Your task to perform on an android device: open app "Adobe Express: Graphic Design" Image 0: 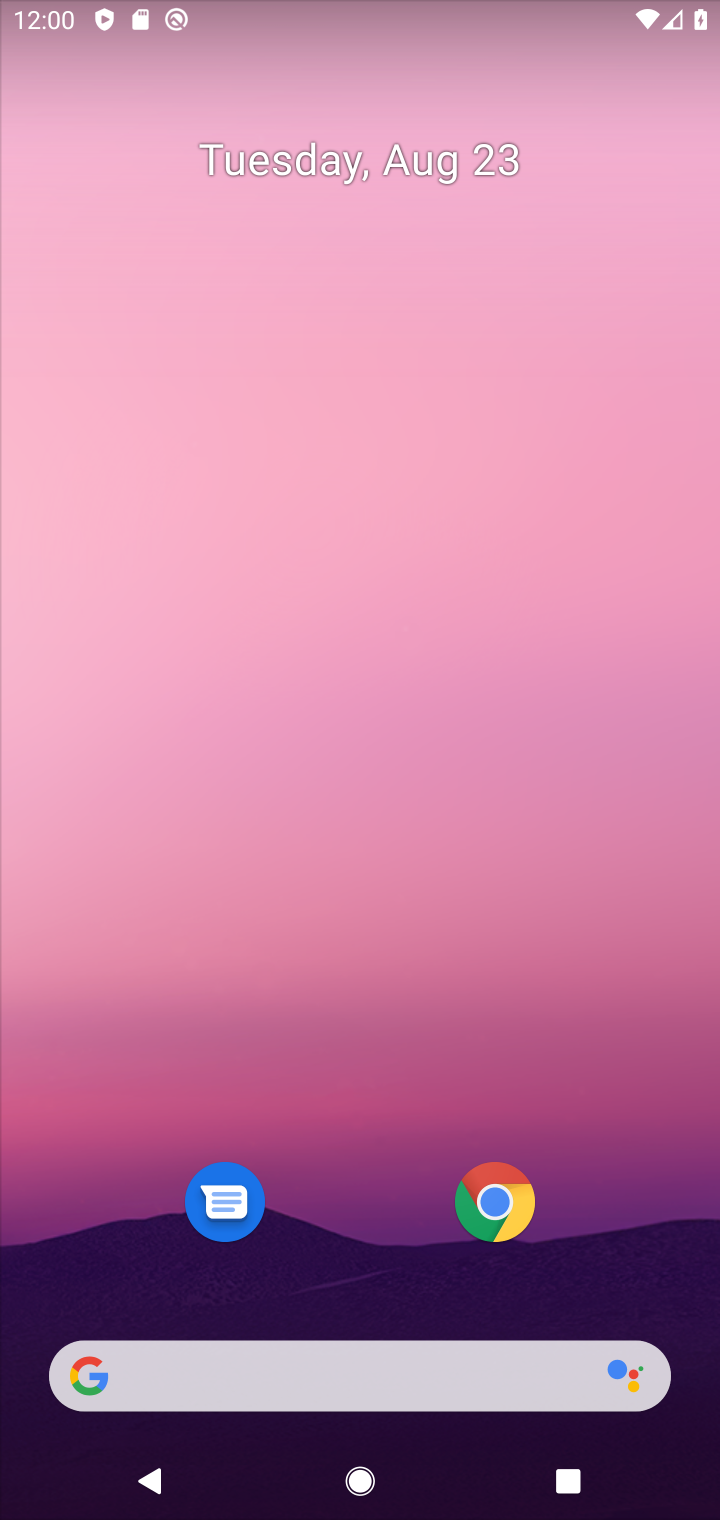
Step 0: drag from (427, 1226) to (421, 173)
Your task to perform on an android device: open app "Adobe Express: Graphic Design" Image 1: 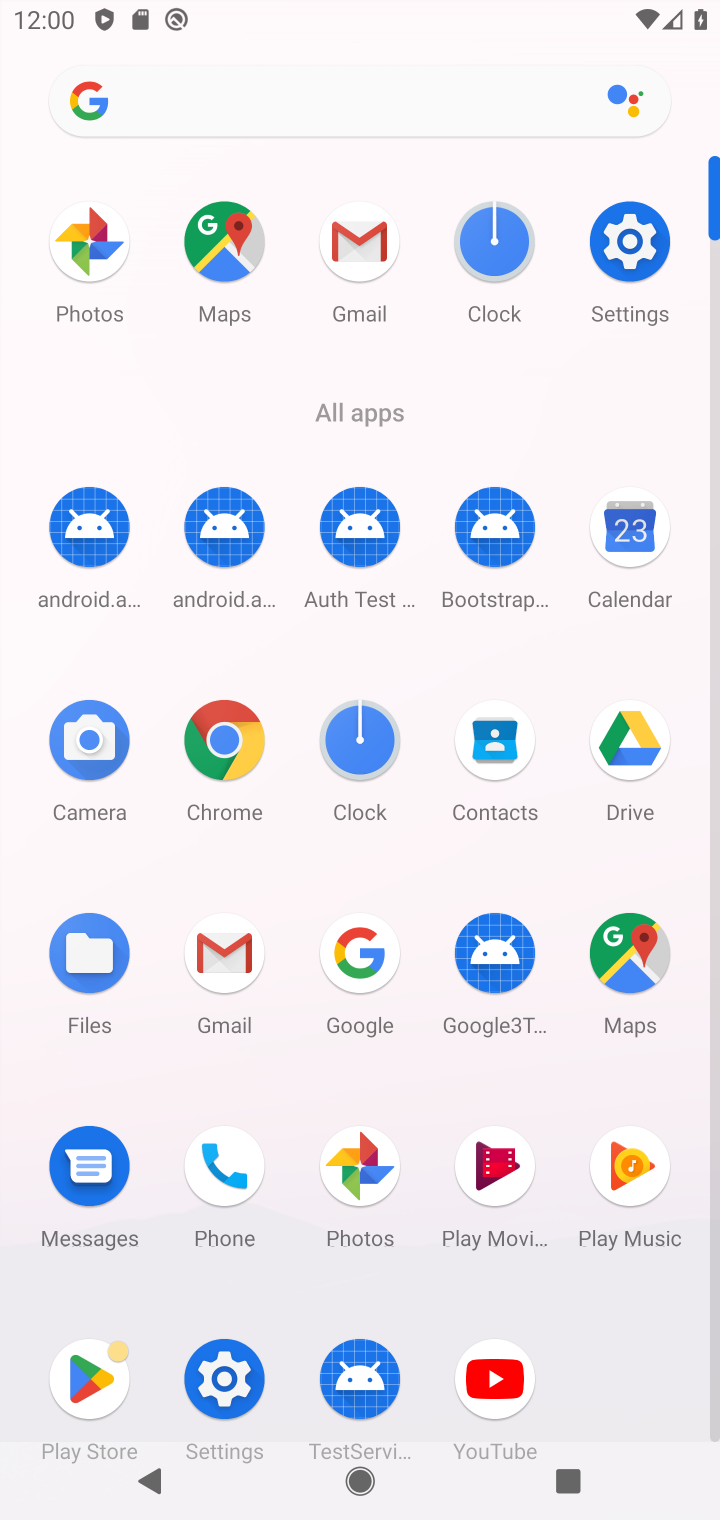
Step 1: click (101, 1360)
Your task to perform on an android device: open app "Adobe Express: Graphic Design" Image 2: 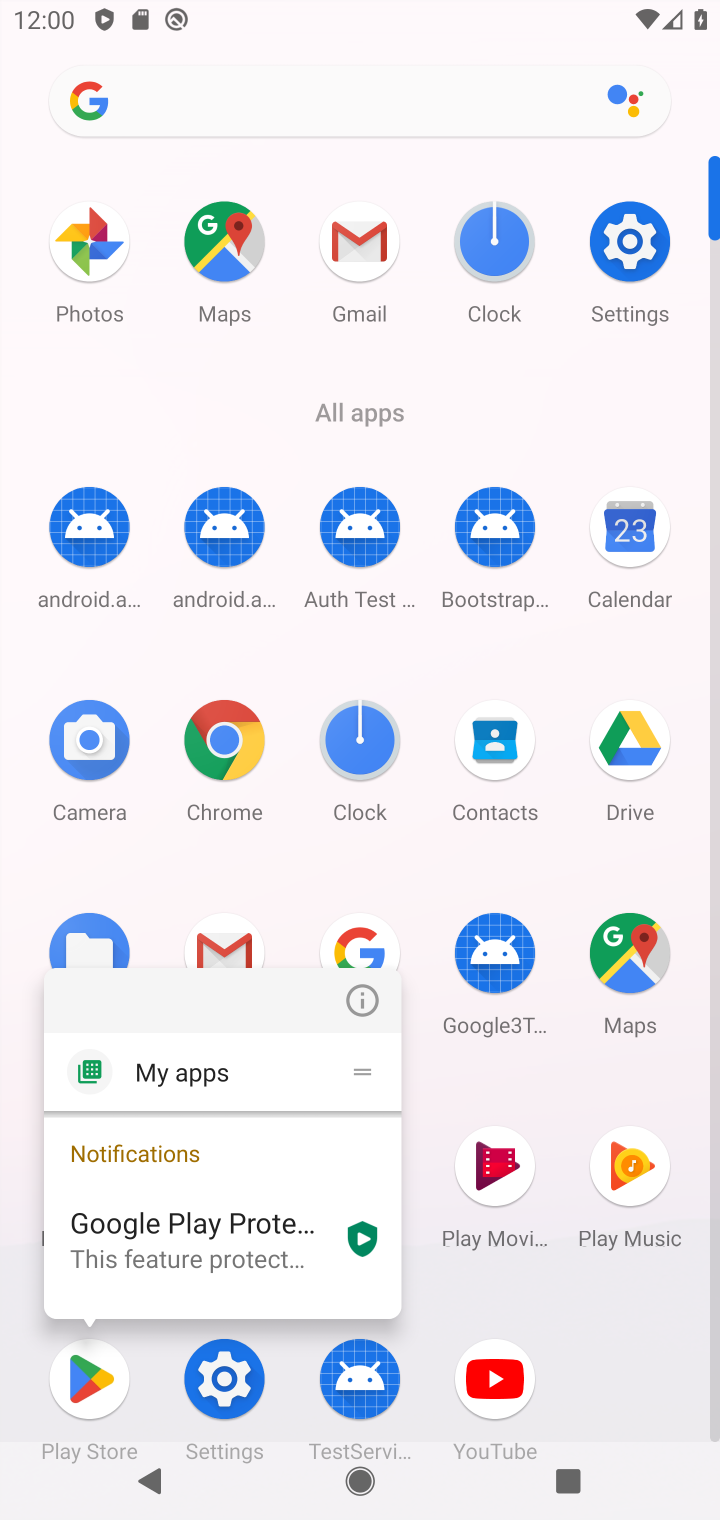
Step 2: click (78, 1373)
Your task to perform on an android device: open app "Adobe Express: Graphic Design" Image 3: 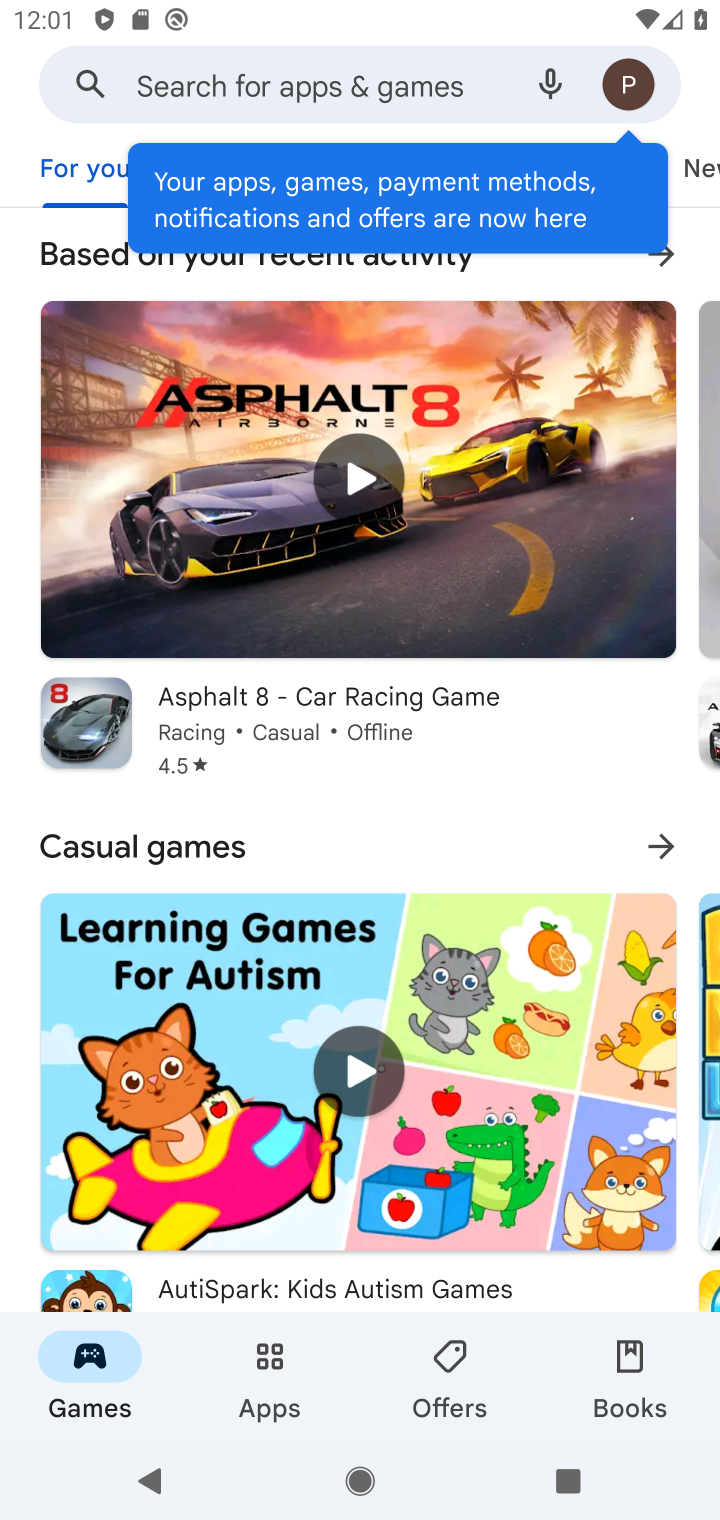
Step 3: click (334, 81)
Your task to perform on an android device: open app "Adobe Express: Graphic Design" Image 4: 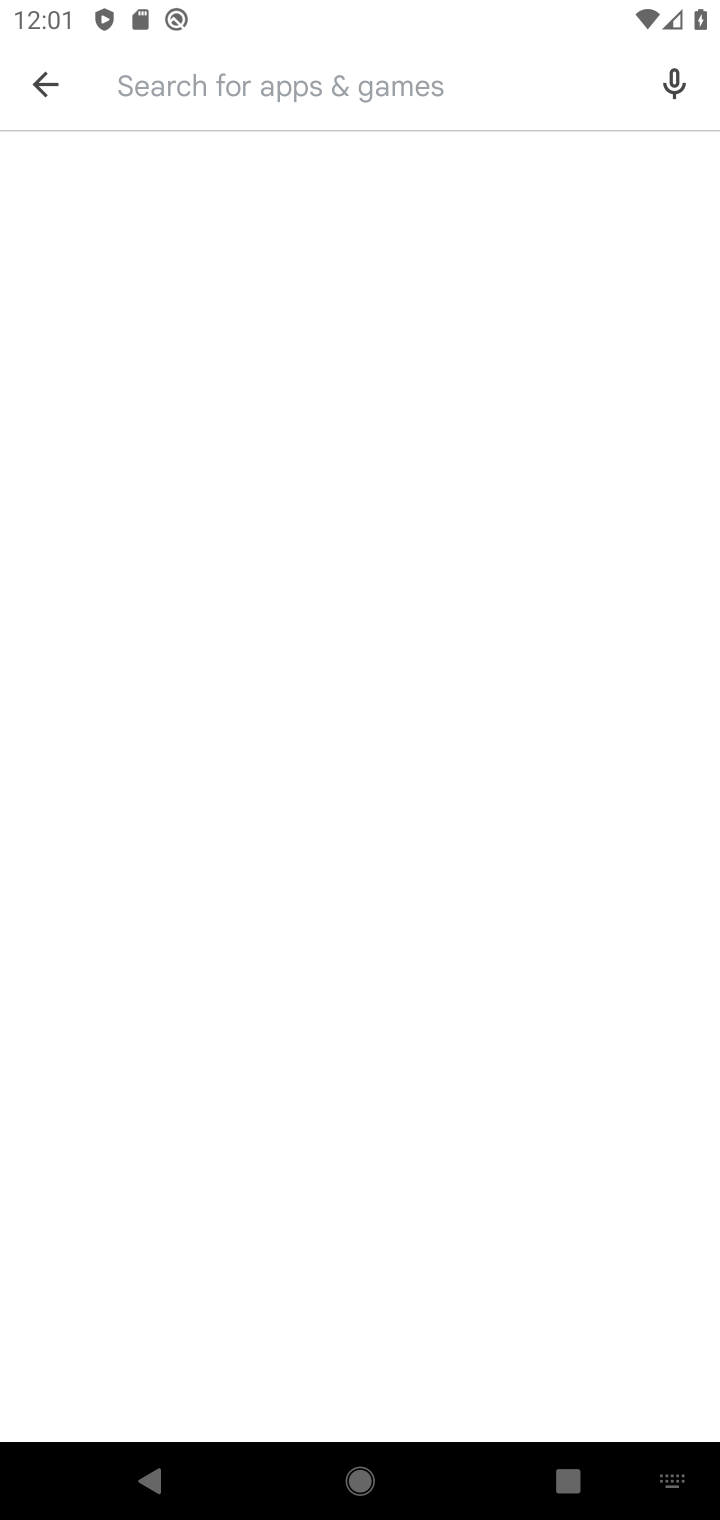
Step 4: type "adobe express"
Your task to perform on an android device: open app "Adobe Express: Graphic Design" Image 5: 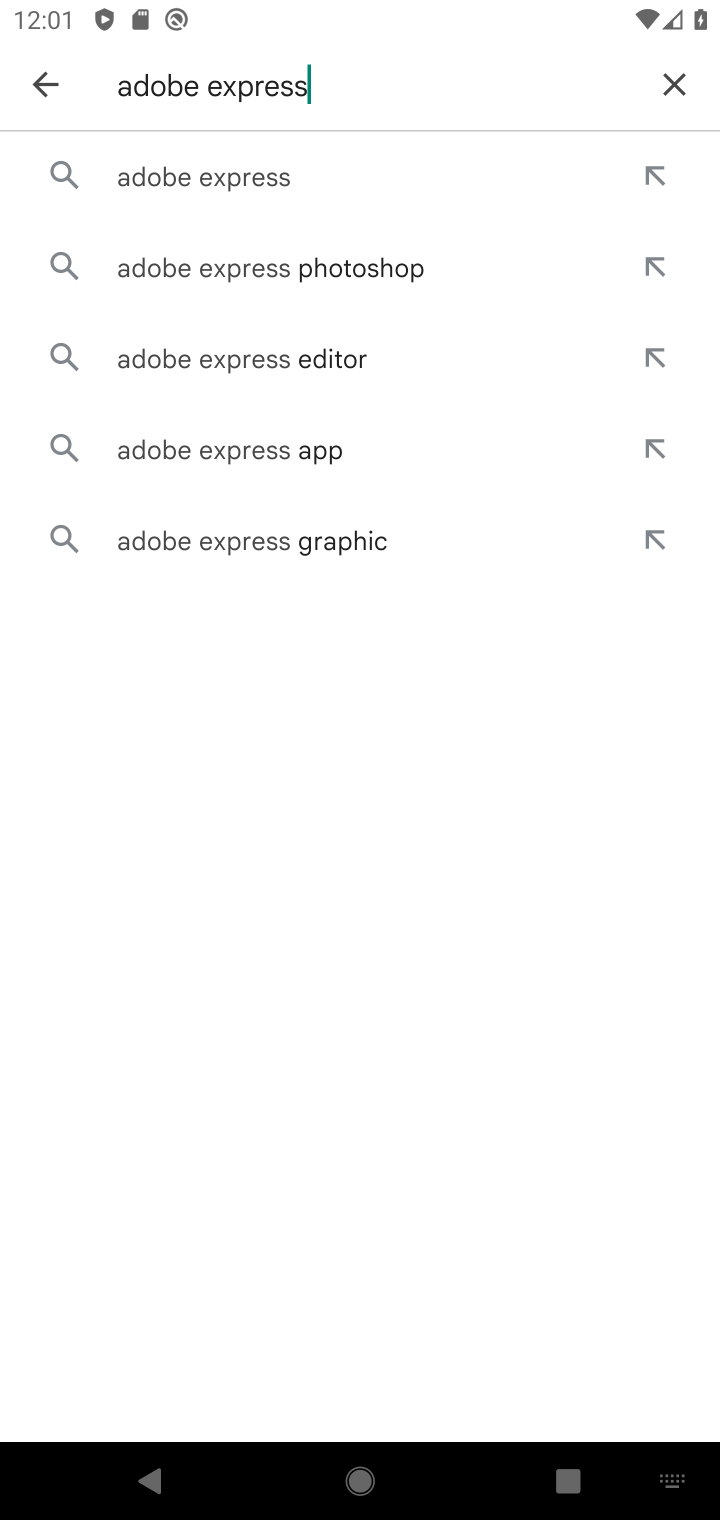
Step 5: click (211, 170)
Your task to perform on an android device: open app "Adobe Express: Graphic Design" Image 6: 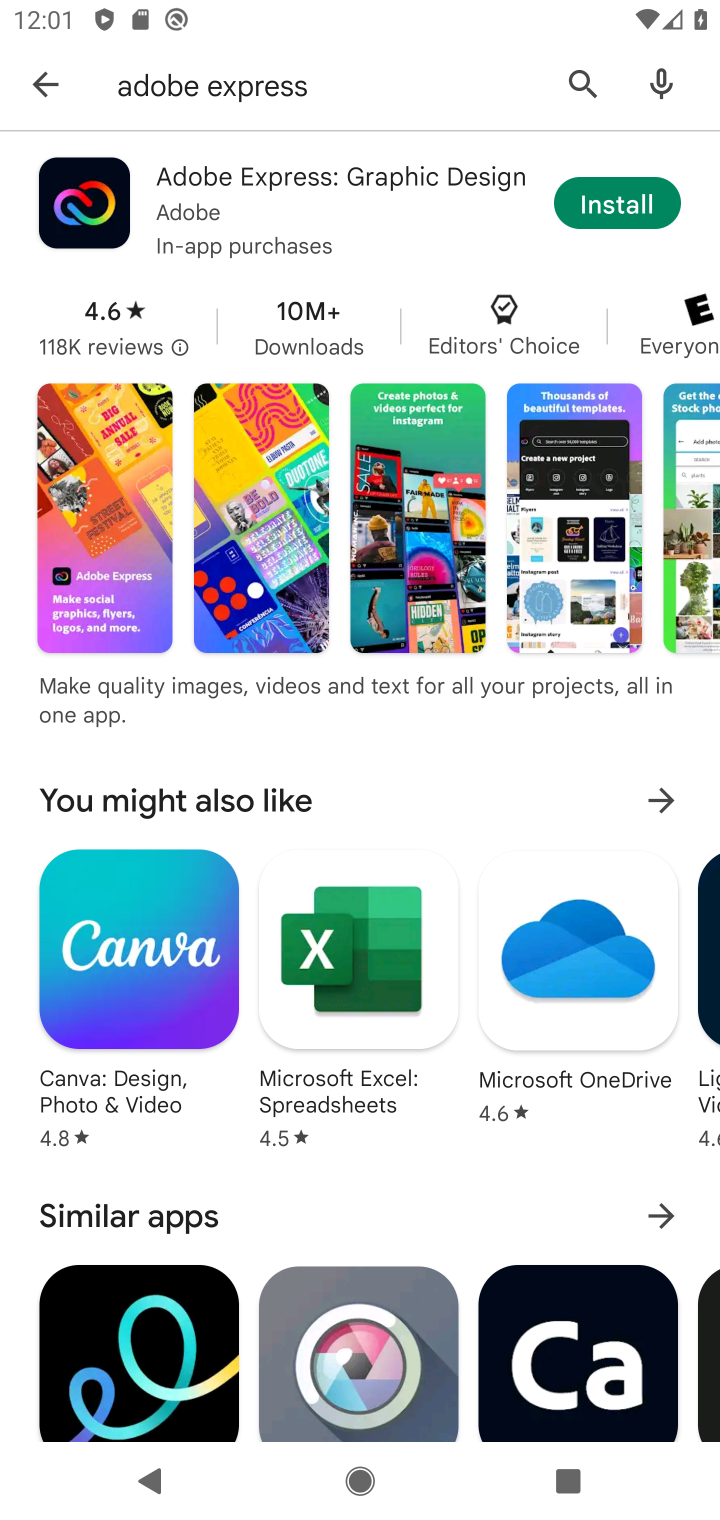
Step 6: task complete